Your task to perform on an android device: Open display settings Image 0: 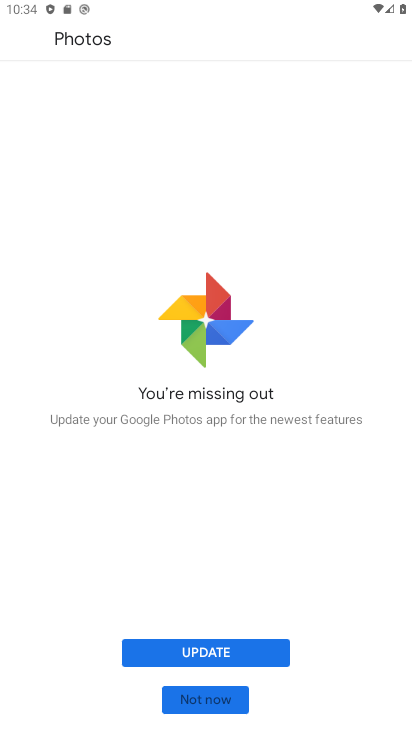
Step 0: press home button
Your task to perform on an android device: Open display settings Image 1: 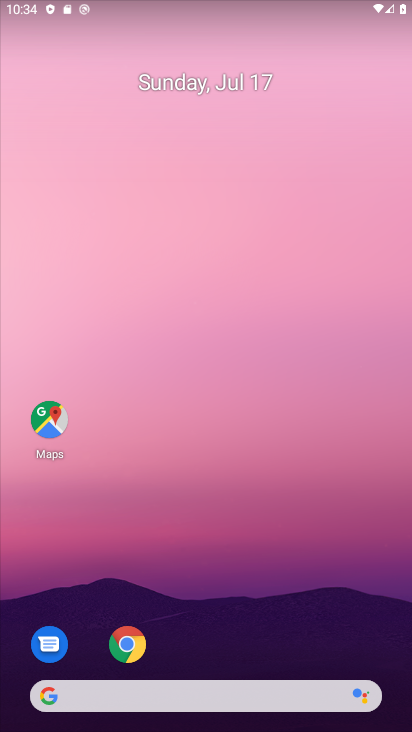
Step 1: drag from (325, 586) to (325, 0)
Your task to perform on an android device: Open display settings Image 2: 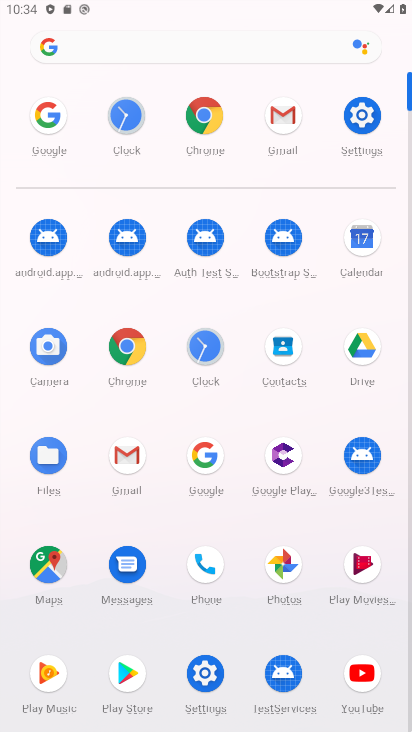
Step 2: click (359, 128)
Your task to perform on an android device: Open display settings Image 3: 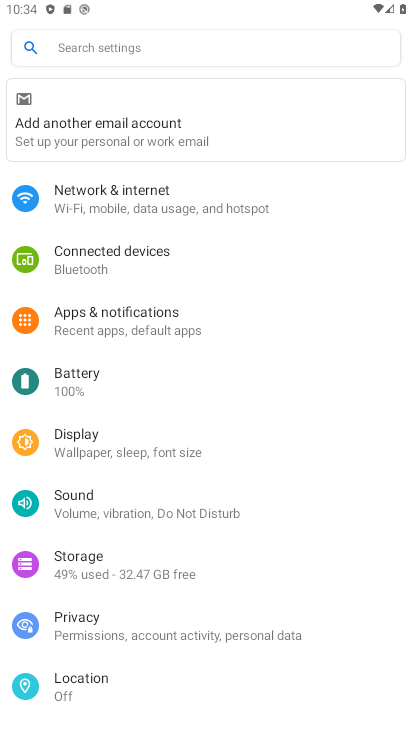
Step 3: click (101, 453)
Your task to perform on an android device: Open display settings Image 4: 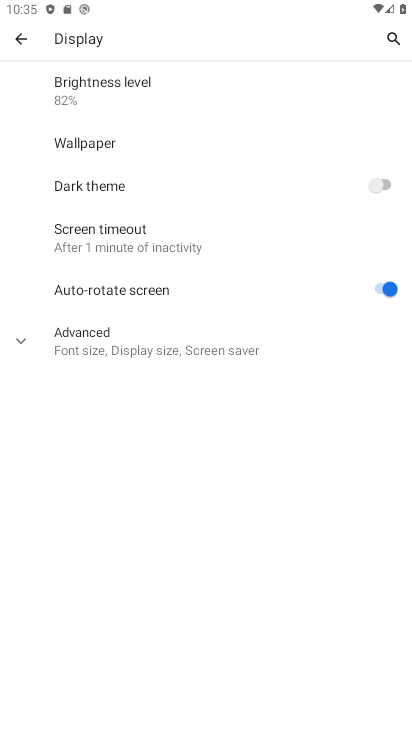
Step 4: task complete